Your task to perform on an android device: What is the recent news? Image 0: 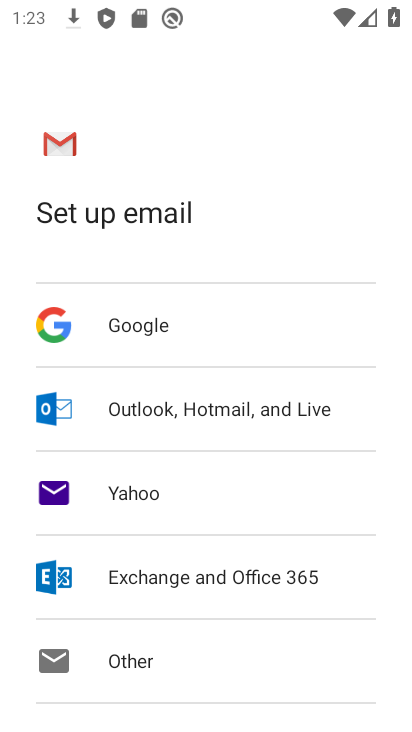
Step 0: press home button
Your task to perform on an android device: What is the recent news? Image 1: 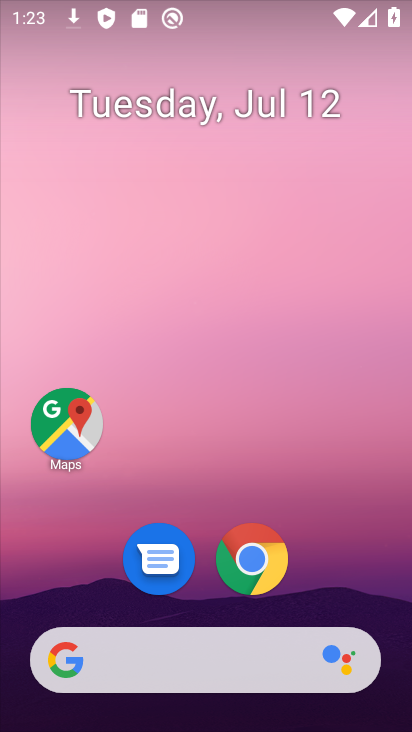
Step 1: drag from (3, 243) to (411, 442)
Your task to perform on an android device: What is the recent news? Image 2: 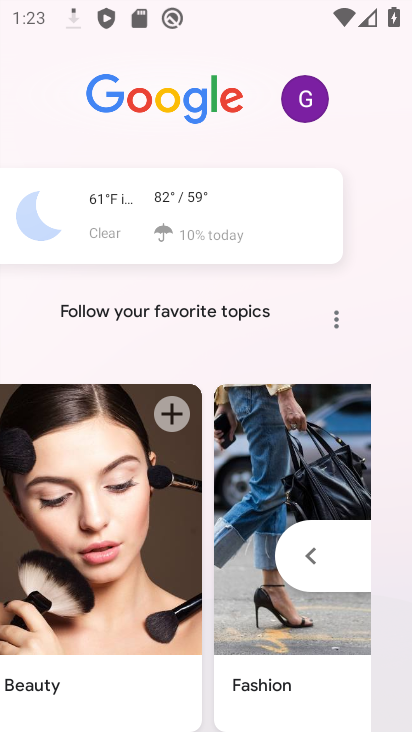
Step 2: click (396, 461)
Your task to perform on an android device: What is the recent news? Image 3: 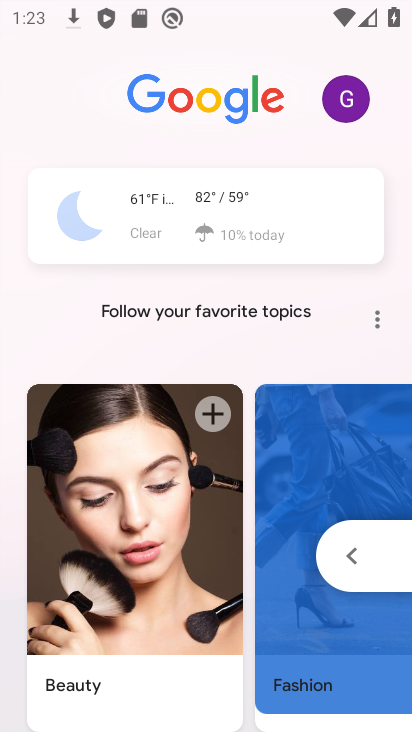
Step 3: task complete